Your task to perform on an android device: Go to Maps Image 0: 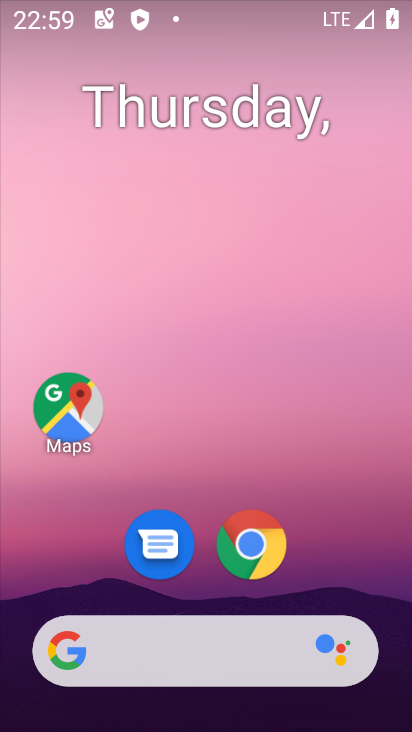
Step 0: click (63, 399)
Your task to perform on an android device: Go to Maps Image 1: 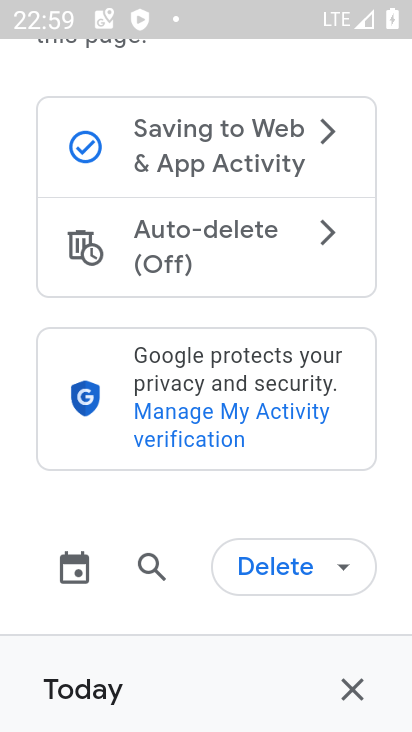
Step 1: task complete